Your task to perform on an android device: make emails show in primary in the gmail app Image 0: 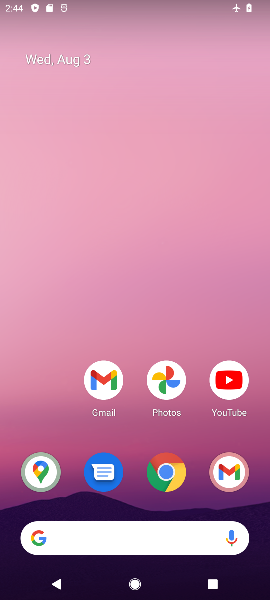
Step 0: drag from (191, 439) to (79, 1)
Your task to perform on an android device: make emails show in primary in the gmail app Image 1: 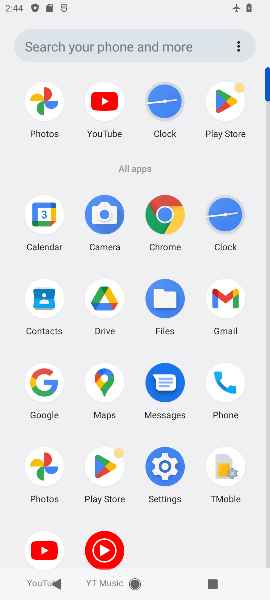
Step 1: click (221, 295)
Your task to perform on an android device: make emails show in primary in the gmail app Image 2: 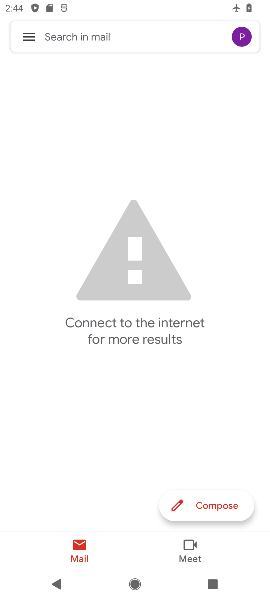
Step 2: task complete